Your task to perform on an android device: Open Chrome and go to the settings page Image 0: 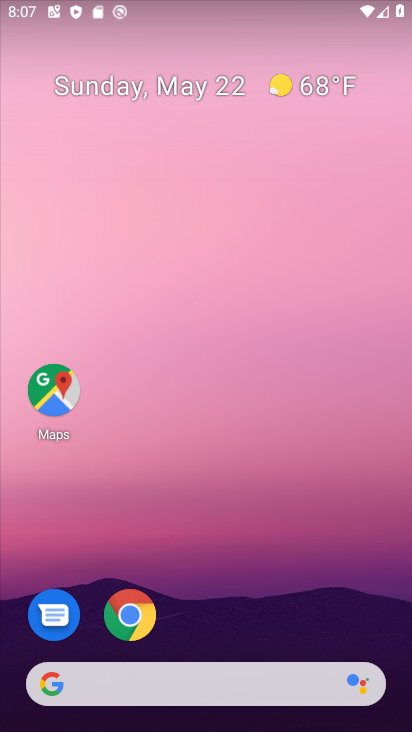
Step 0: click (134, 621)
Your task to perform on an android device: Open Chrome and go to the settings page Image 1: 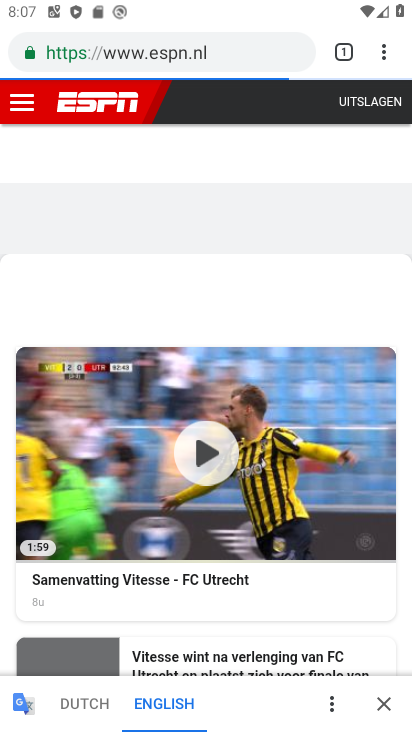
Step 1: click (381, 58)
Your task to perform on an android device: Open Chrome and go to the settings page Image 2: 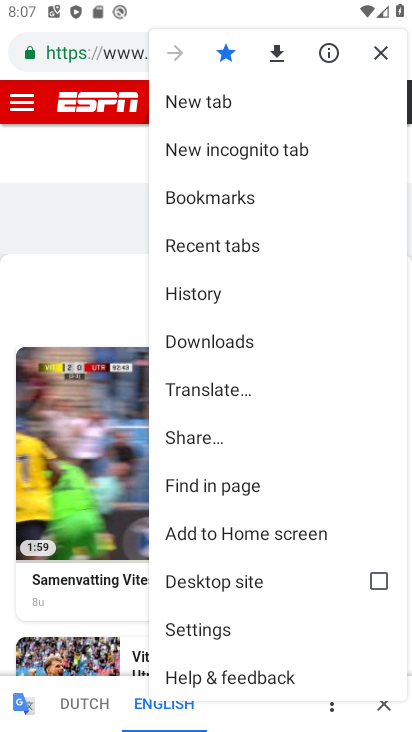
Step 2: click (194, 621)
Your task to perform on an android device: Open Chrome and go to the settings page Image 3: 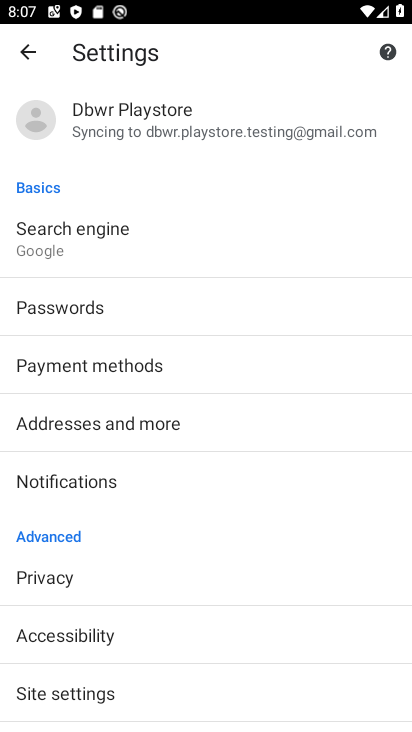
Step 3: task complete